Your task to perform on an android device: change the clock display to show seconds Image 0: 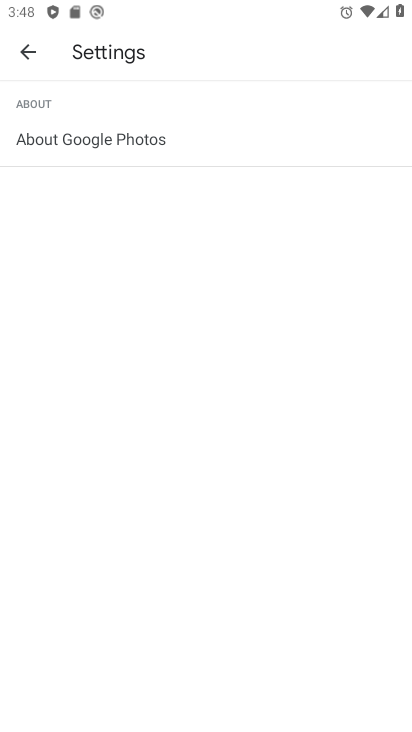
Step 0: press home button
Your task to perform on an android device: change the clock display to show seconds Image 1: 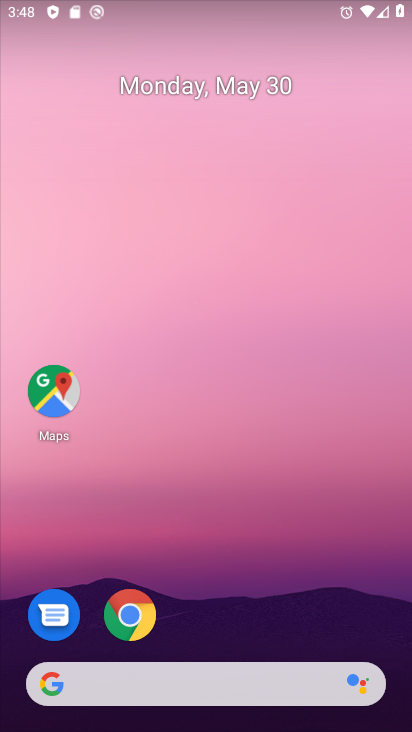
Step 1: drag from (232, 569) to (235, 47)
Your task to perform on an android device: change the clock display to show seconds Image 2: 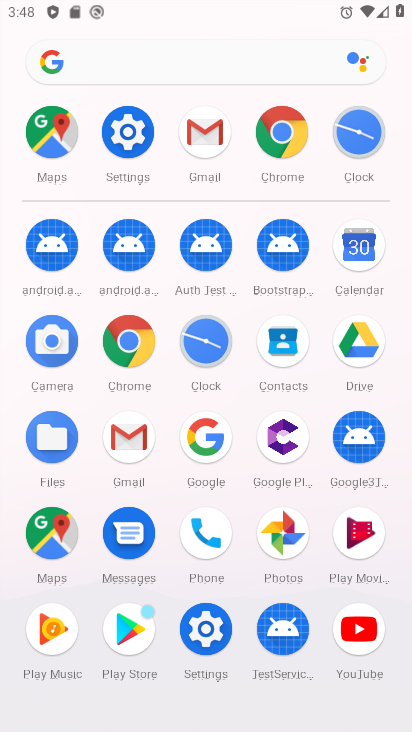
Step 2: click (365, 135)
Your task to perform on an android device: change the clock display to show seconds Image 3: 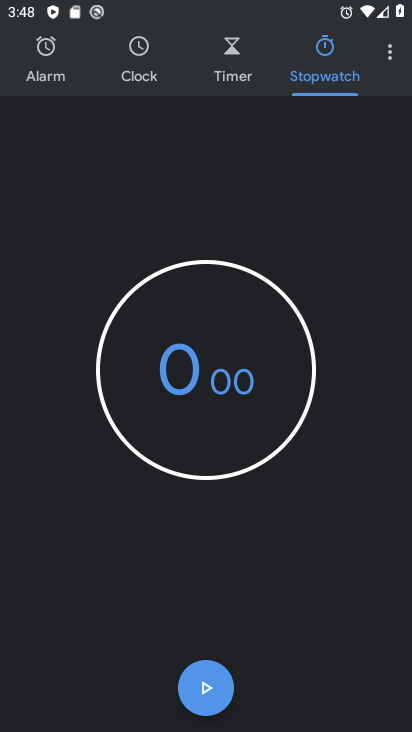
Step 3: click (386, 58)
Your task to perform on an android device: change the clock display to show seconds Image 4: 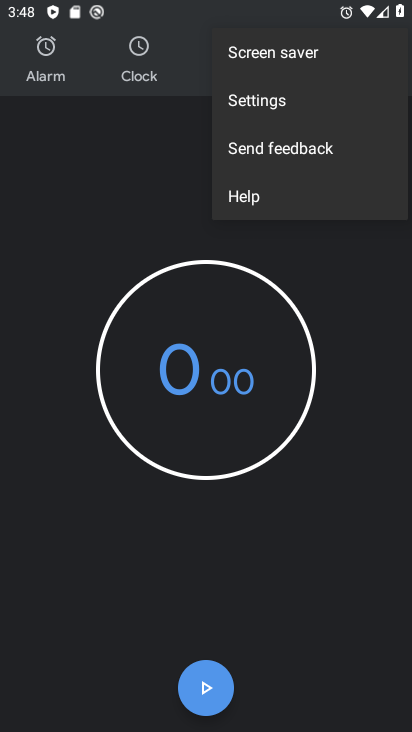
Step 4: click (332, 105)
Your task to perform on an android device: change the clock display to show seconds Image 5: 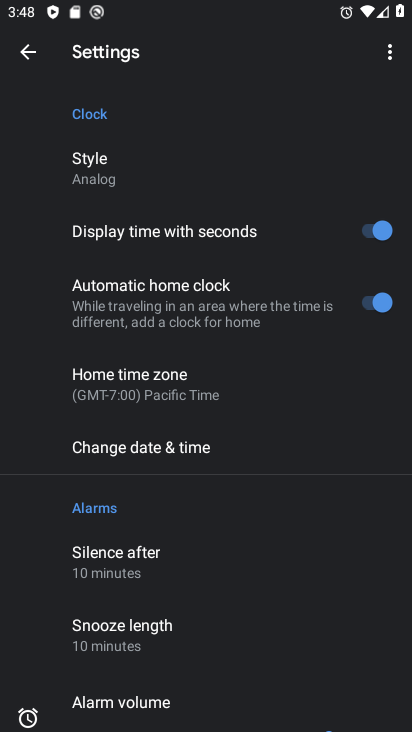
Step 5: task complete